Your task to perform on an android device: Clear the cart on bestbuy. Search for "corsair k70" on bestbuy, select the first entry, and add it to the cart. Image 0: 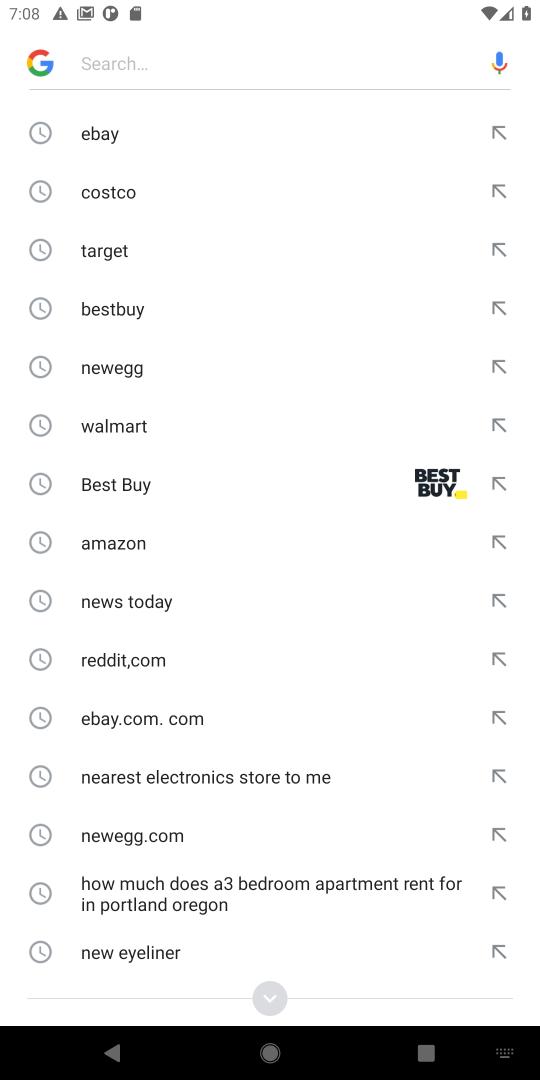
Step 0: press home button
Your task to perform on an android device: Clear the cart on bestbuy. Search for "corsair k70" on bestbuy, select the first entry, and add it to the cart. Image 1: 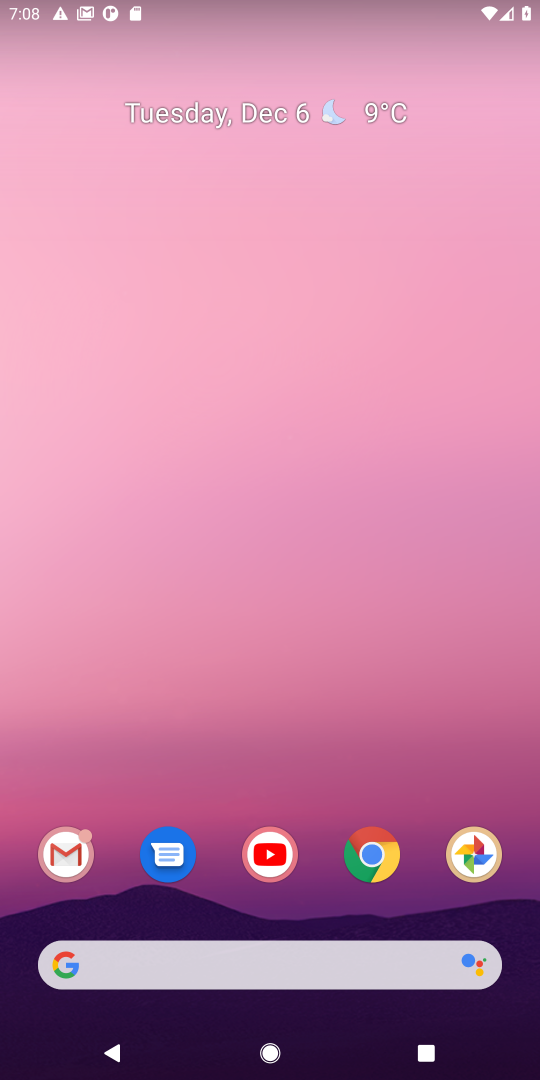
Step 1: click (354, 865)
Your task to perform on an android device: Clear the cart on bestbuy. Search for "corsair k70" on bestbuy, select the first entry, and add it to the cart. Image 2: 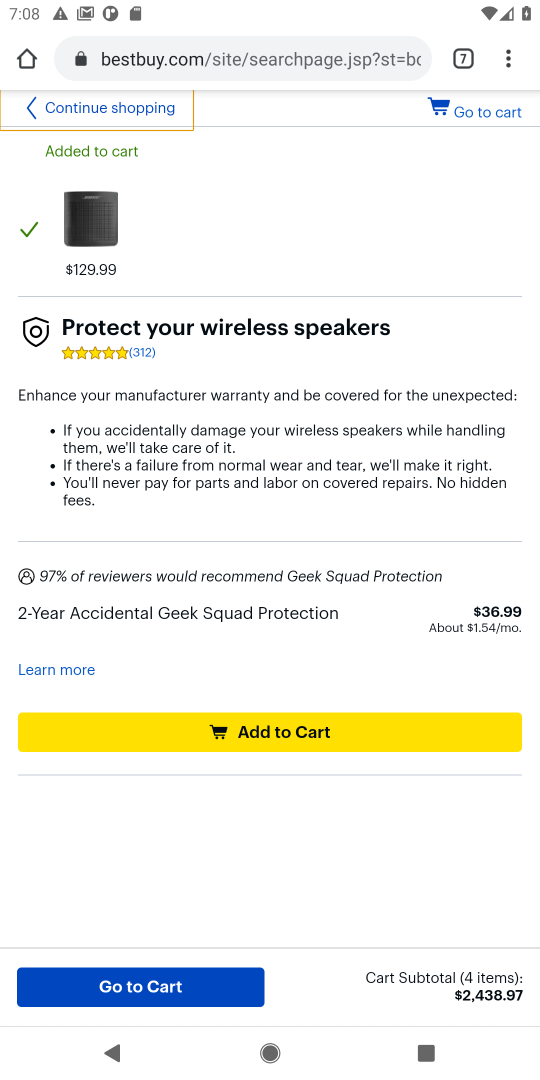
Step 2: click (464, 55)
Your task to perform on an android device: Clear the cart on bestbuy. Search for "corsair k70" on bestbuy, select the first entry, and add it to the cart. Image 3: 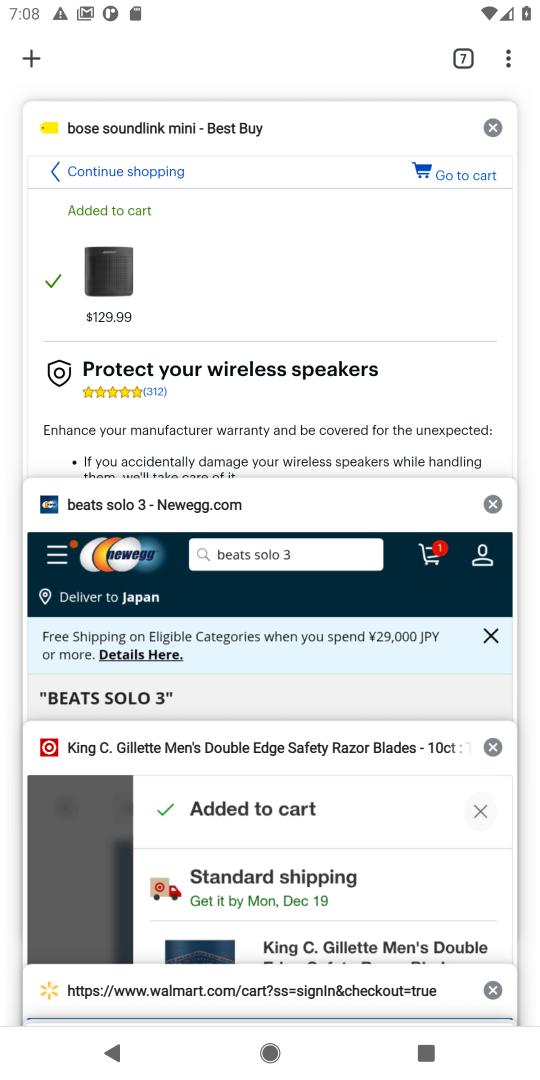
Step 3: click (247, 227)
Your task to perform on an android device: Clear the cart on bestbuy. Search for "corsair k70" on bestbuy, select the first entry, and add it to the cart. Image 4: 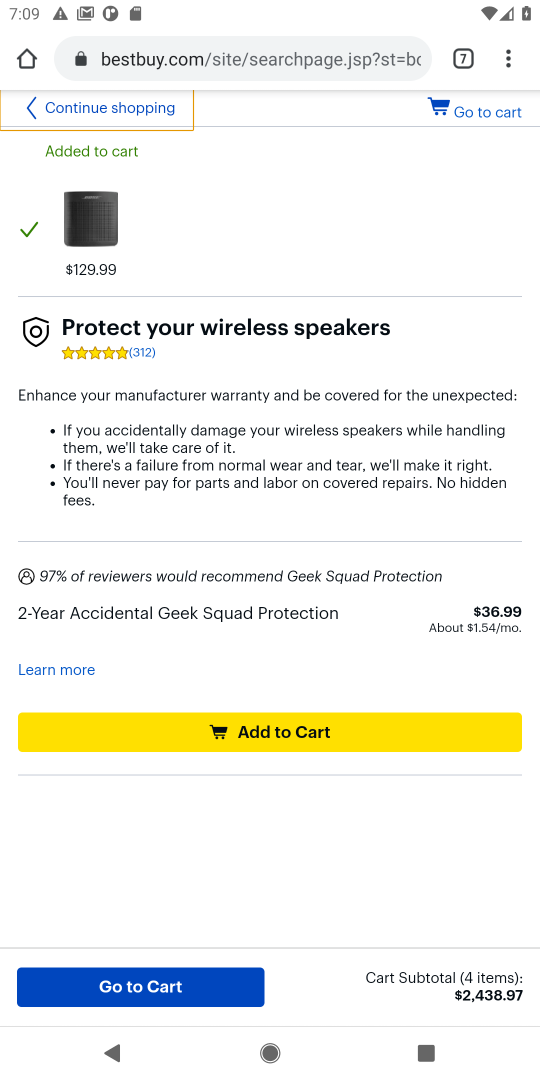
Step 4: click (195, 994)
Your task to perform on an android device: Clear the cart on bestbuy. Search for "corsair k70" on bestbuy, select the first entry, and add it to the cart. Image 5: 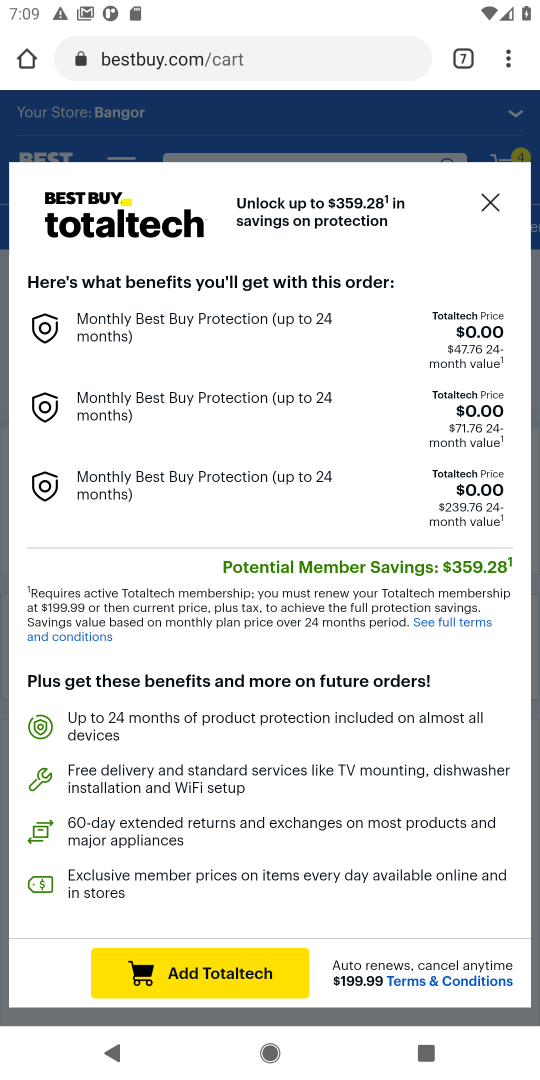
Step 5: click (489, 200)
Your task to perform on an android device: Clear the cart on bestbuy. Search for "corsair k70" on bestbuy, select the first entry, and add it to the cart. Image 6: 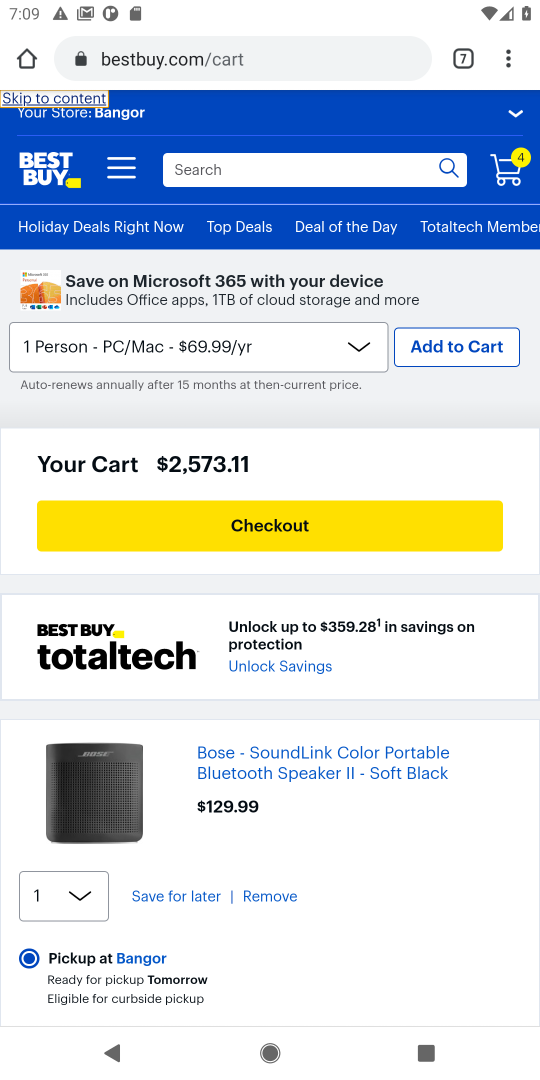
Step 6: click (275, 890)
Your task to perform on an android device: Clear the cart on bestbuy. Search for "corsair k70" on bestbuy, select the first entry, and add it to the cart. Image 7: 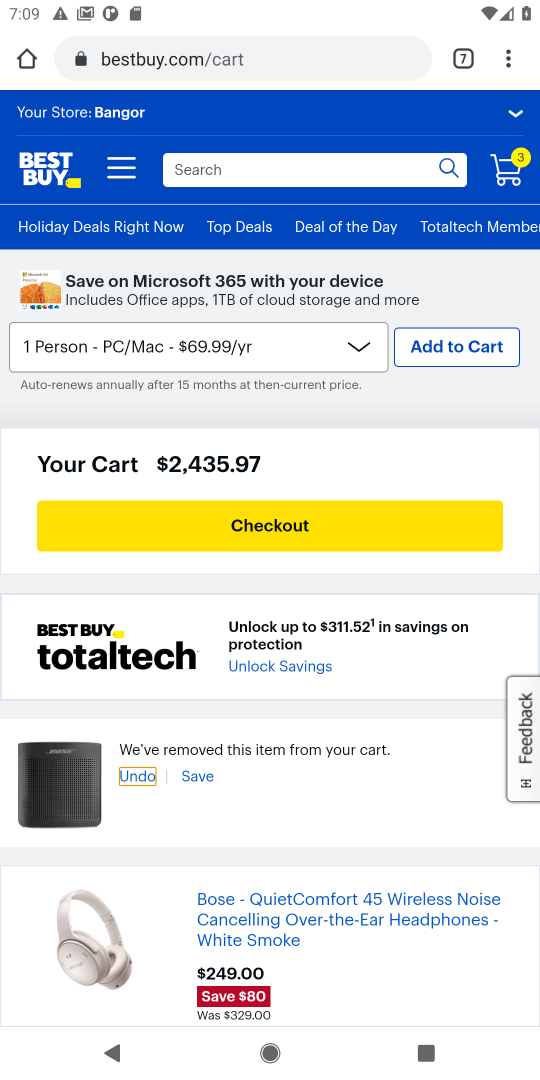
Step 7: drag from (434, 951) to (498, 503)
Your task to perform on an android device: Clear the cart on bestbuy. Search for "corsair k70" on bestbuy, select the first entry, and add it to the cart. Image 8: 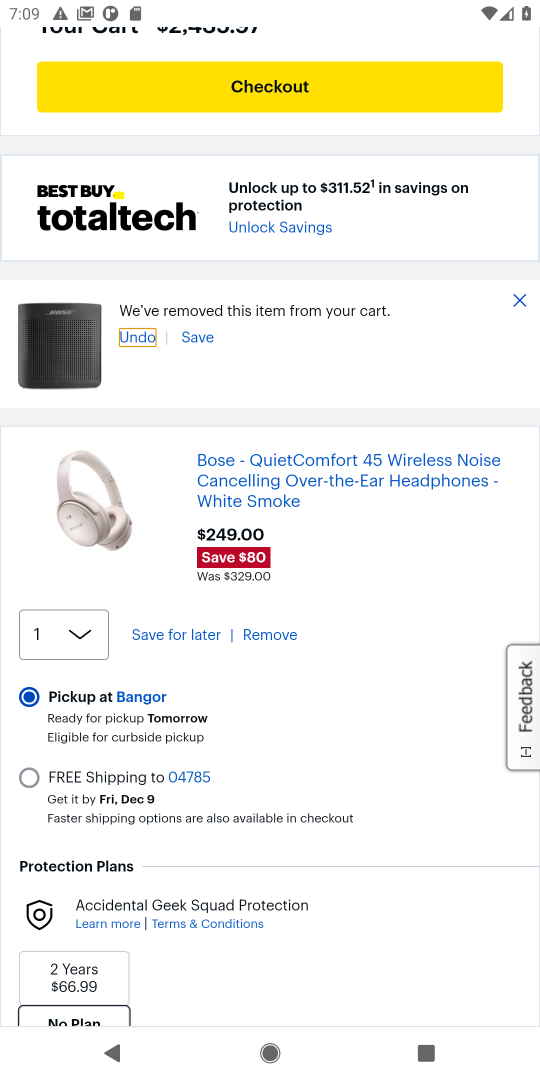
Step 8: click (270, 629)
Your task to perform on an android device: Clear the cart on bestbuy. Search for "corsair k70" on bestbuy, select the first entry, and add it to the cart. Image 9: 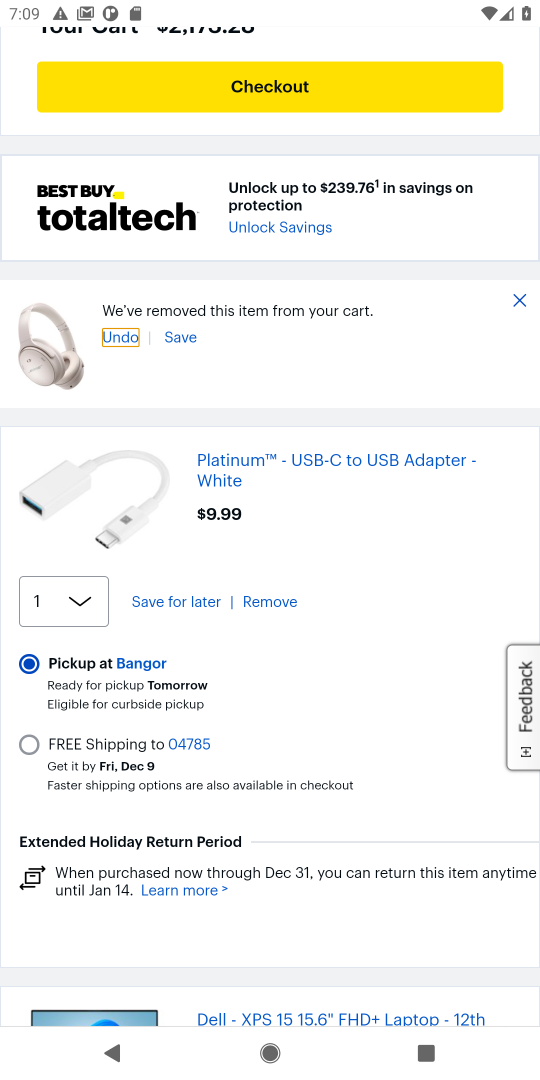
Step 9: click (273, 592)
Your task to perform on an android device: Clear the cart on bestbuy. Search for "corsair k70" on bestbuy, select the first entry, and add it to the cart. Image 10: 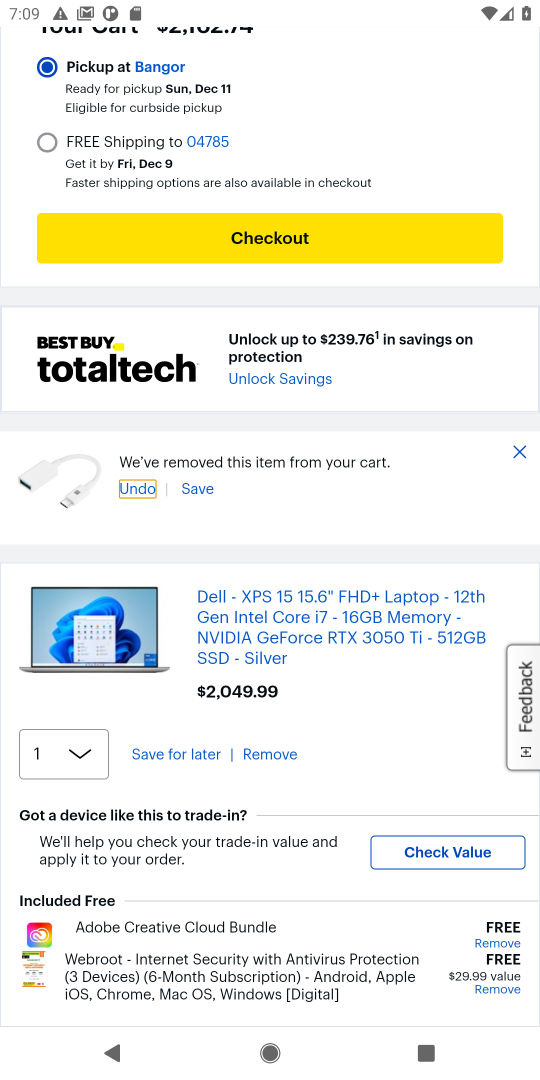
Step 10: click (276, 746)
Your task to perform on an android device: Clear the cart on bestbuy. Search for "corsair k70" on bestbuy, select the first entry, and add it to the cart. Image 11: 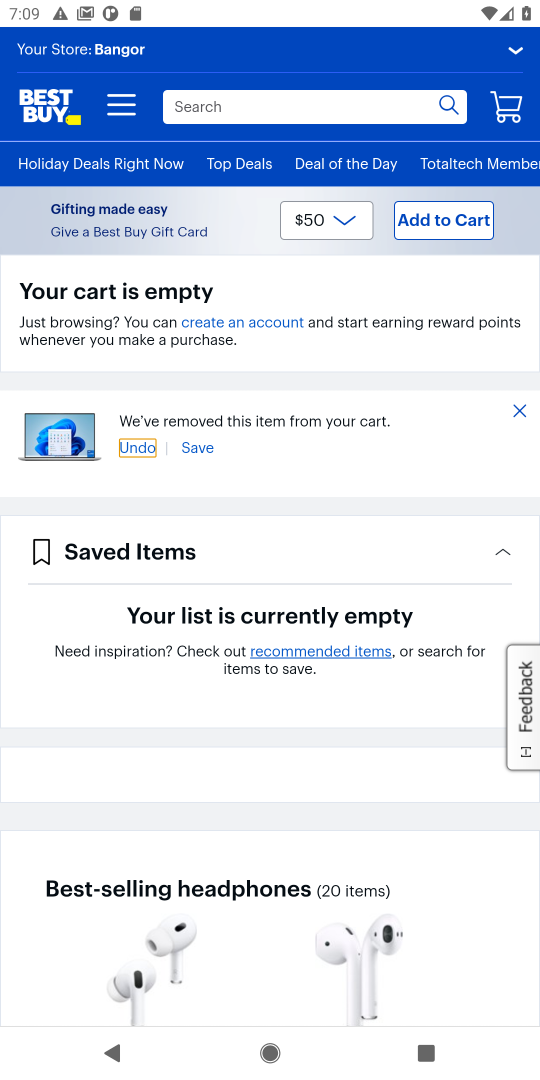
Step 11: click (218, 105)
Your task to perform on an android device: Clear the cart on bestbuy. Search for "corsair k70" on bestbuy, select the first entry, and add it to the cart. Image 12: 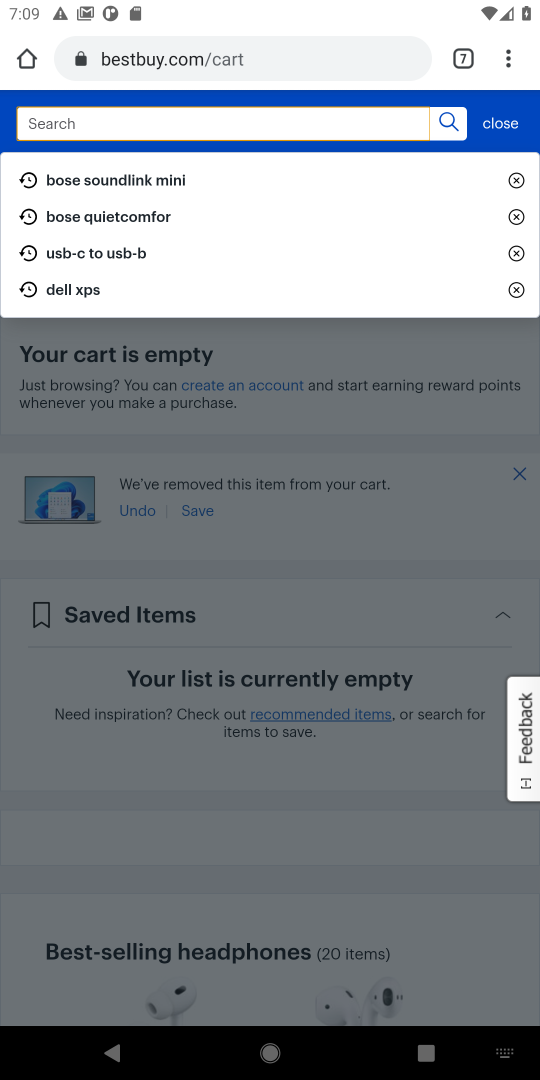
Step 12: type "corsair k70"
Your task to perform on an android device: Clear the cart on bestbuy. Search for "corsair k70" on bestbuy, select the first entry, and add it to the cart. Image 13: 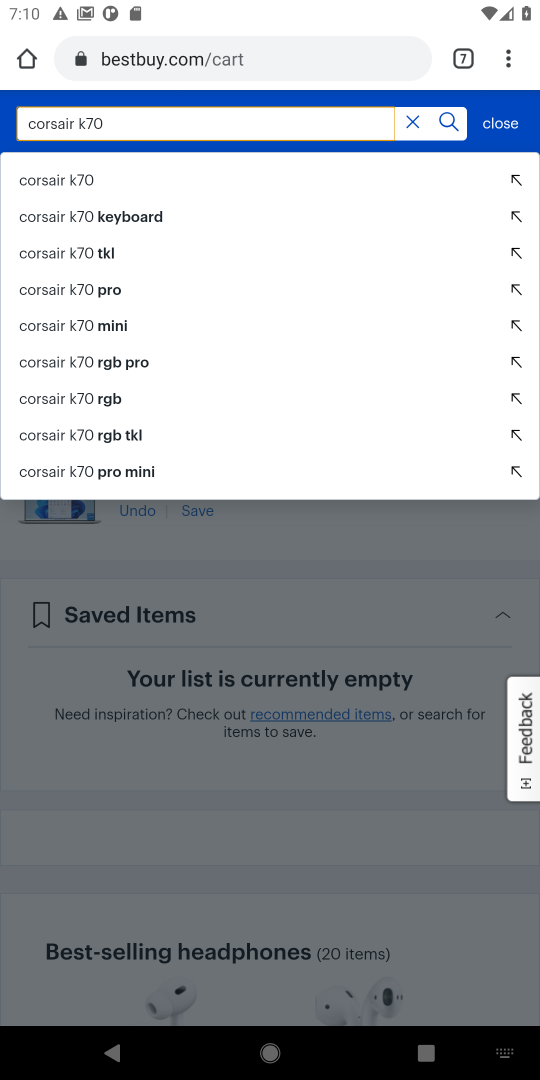
Step 13: click (60, 179)
Your task to perform on an android device: Clear the cart on bestbuy. Search for "corsair k70" on bestbuy, select the first entry, and add it to the cart. Image 14: 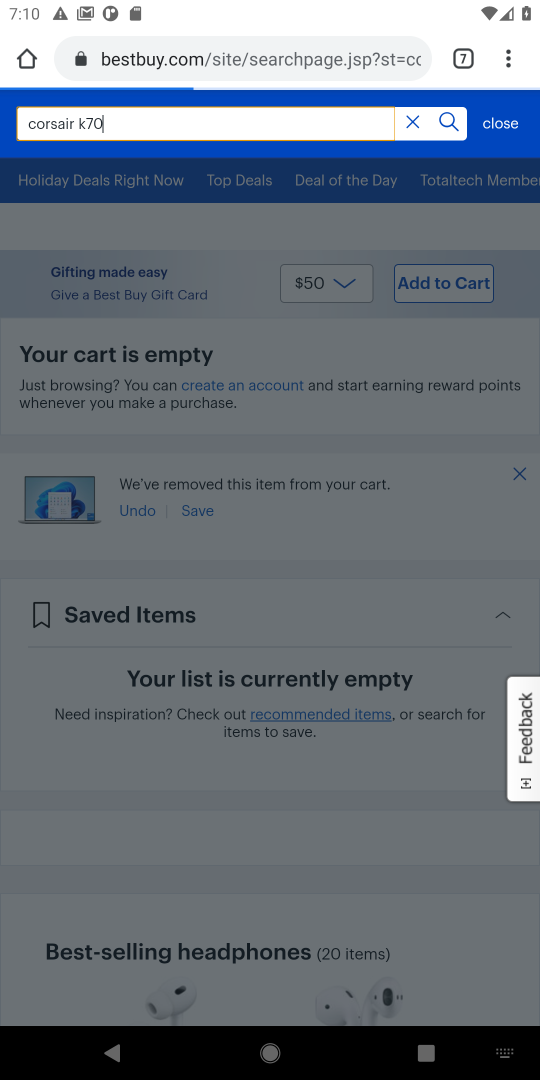
Step 14: click (443, 114)
Your task to perform on an android device: Clear the cart on bestbuy. Search for "corsair k70" on bestbuy, select the first entry, and add it to the cart. Image 15: 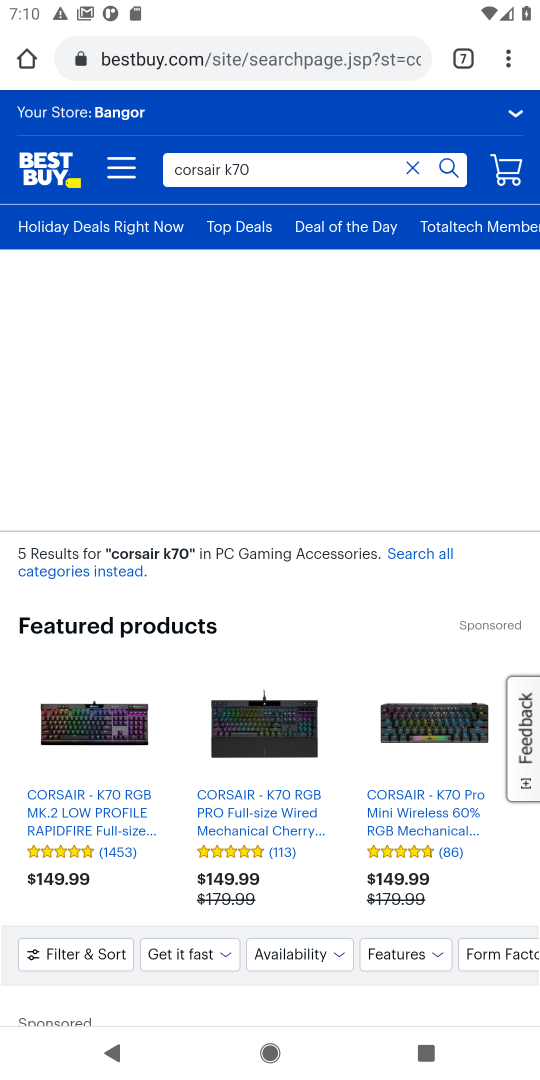
Step 15: drag from (141, 896) to (207, 553)
Your task to perform on an android device: Clear the cart on bestbuy. Search for "corsair k70" on bestbuy, select the first entry, and add it to the cart. Image 16: 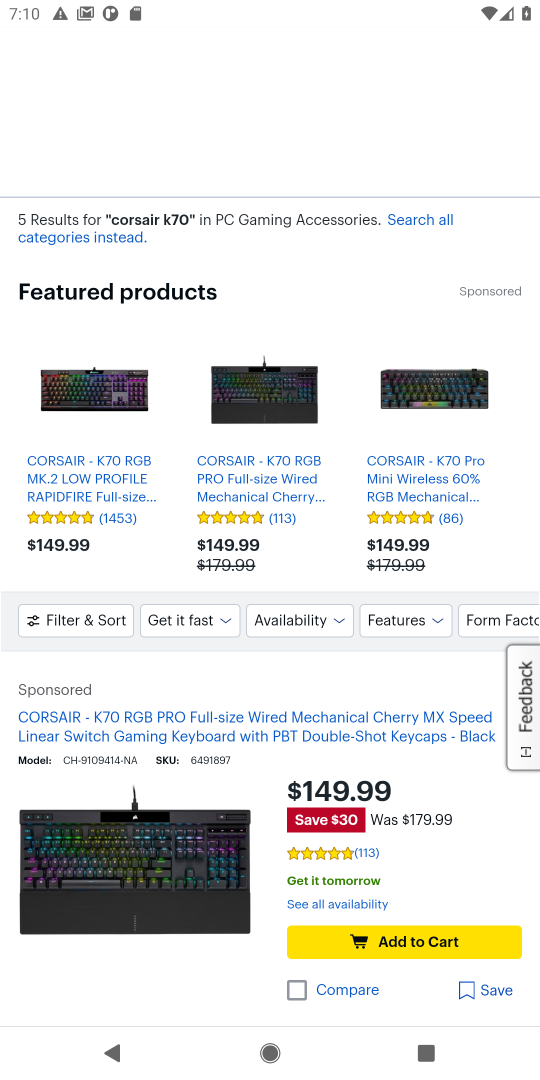
Step 16: click (441, 935)
Your task to perform on an android device: Clear the cart on bestbuy. Search for "corsair k70" on bestbuy, select the first entry, and add it to the cart. Image 17: 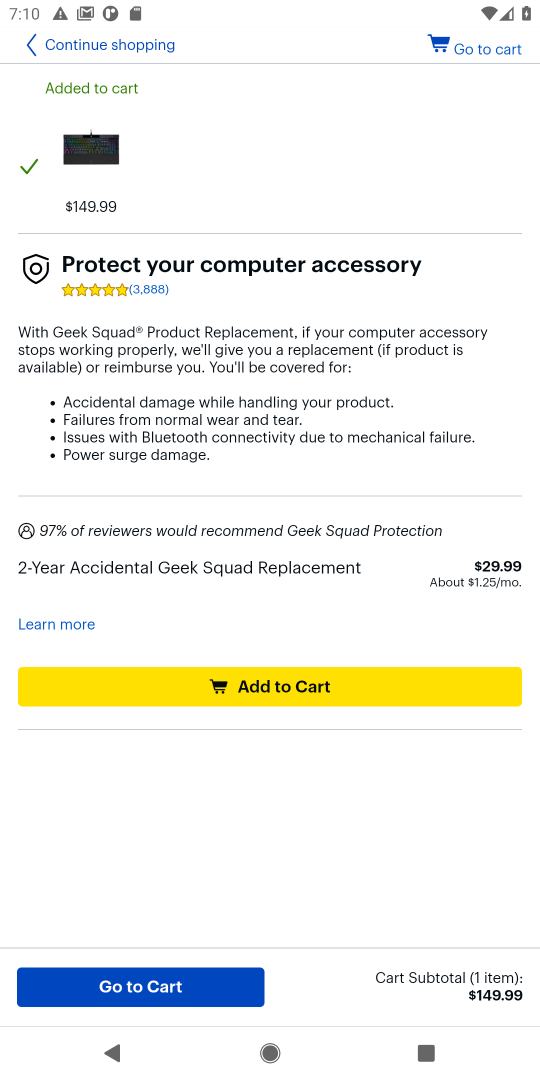
Step 17: task complete